Your task to perform on an android device: check data usage Image 0: 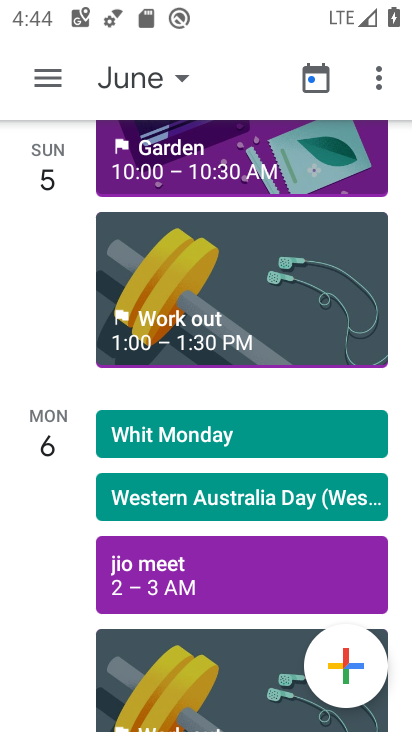
Step 0: press home button
Your task to perform on an android device: check data usage Image 1: 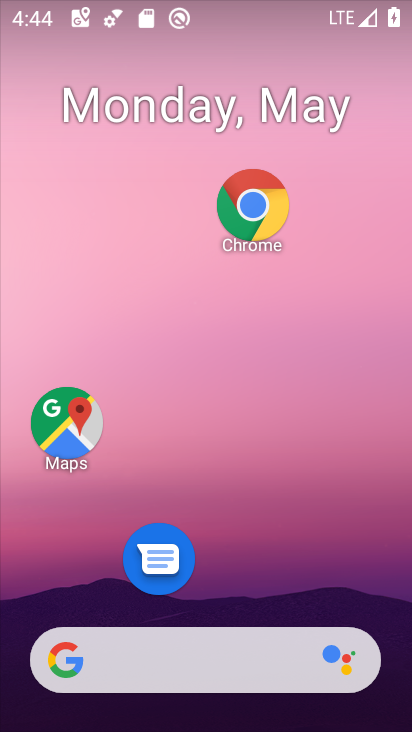
Step 1: drag from (235, 591) to (270, 154)
Your task to perform on an android device: check data usage Image 2: 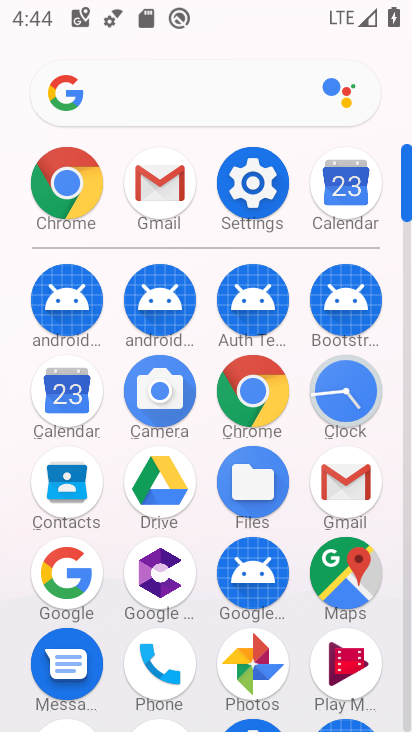
Step 2: click (252, 195)
Your task to perform on an android device: check data usage Image 3: 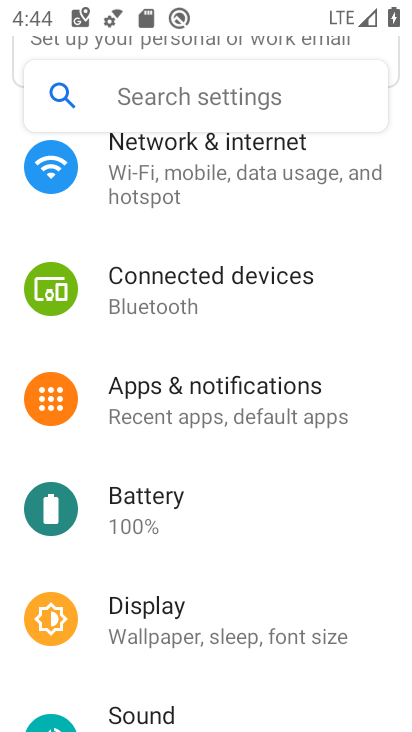
Step 3: click (193, 184)
Your task to perform on an android device: check data usage Image 4: 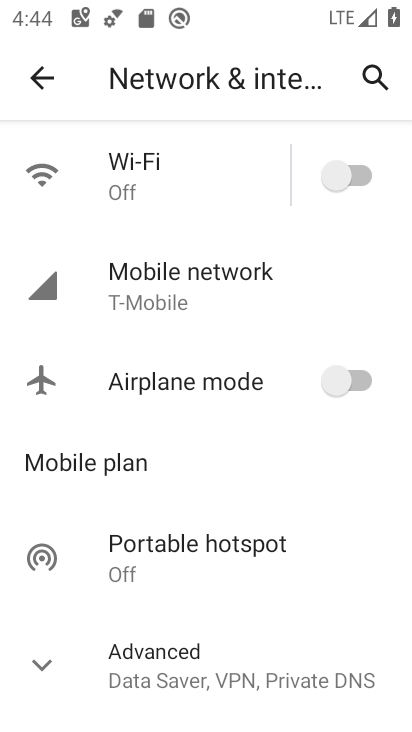
Step 4: click (145, 284)
Your task to perform on an android device: check data usage Image 5: 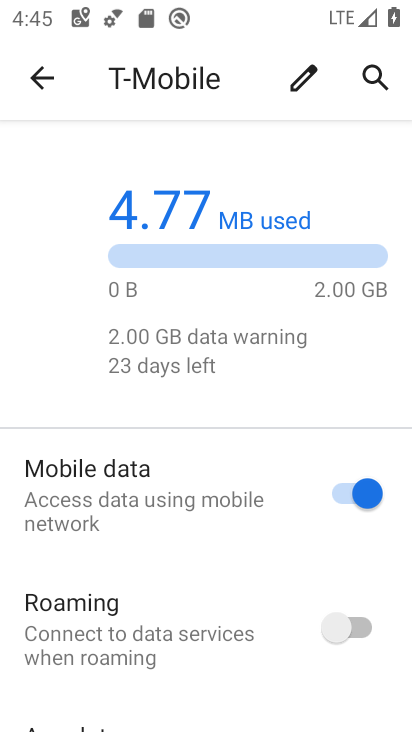
Step 5: task complete